Your task to perform on an android device: turn off sleep mode Image 0: 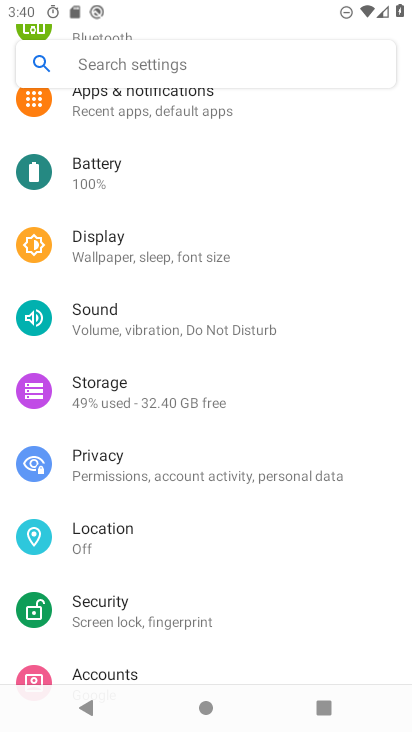
Step 0: press home button
Your task to perform on an android device: turn off sleep mode Image 1: 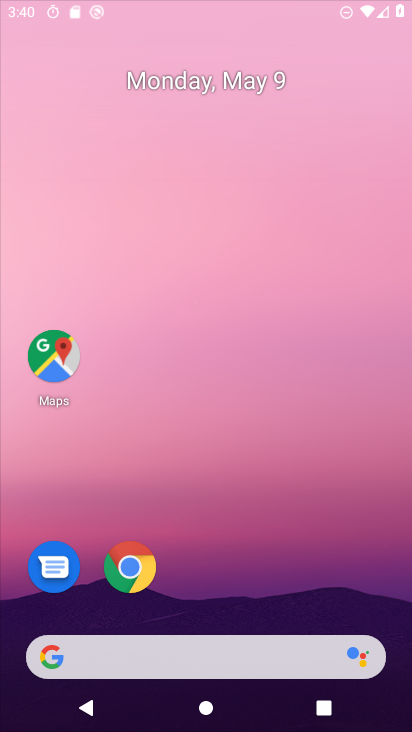
Step 1: drag from (293, 548) to (325, 17)
Your task to perform on an android device: turn off sleep mode Image 2: 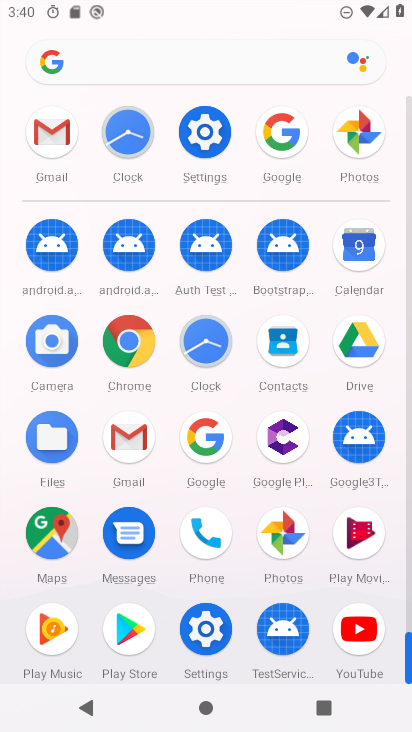
Step 2: click (207, 190)
Your task to perform on an android device: turn off sleep mode Image 3: 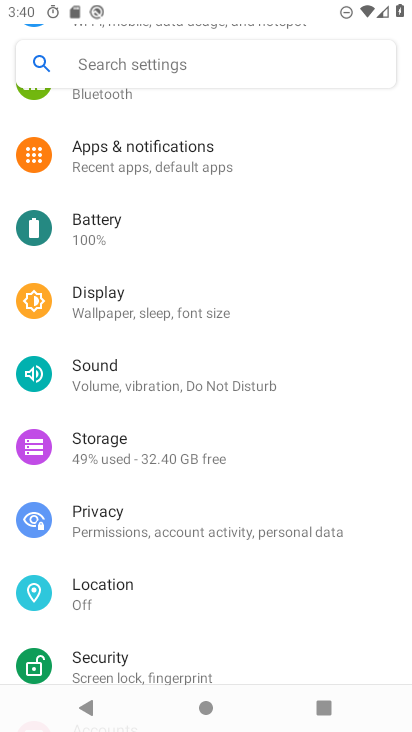
Step 3: click (174, 312)
Your task to perform on an android device: turn off sleep mode Image 4: 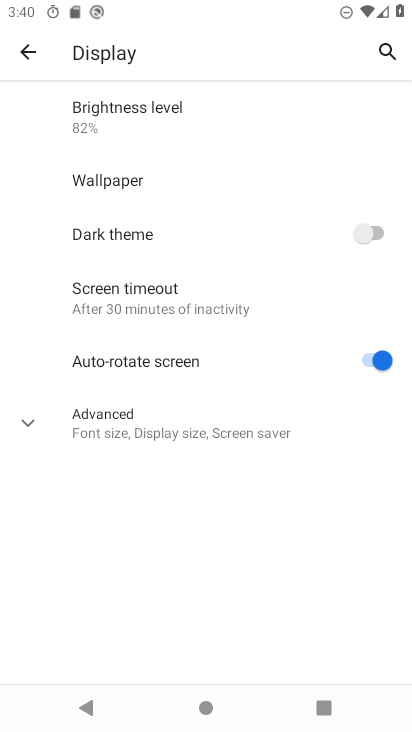
Step 4: click (216, 424)
Your task to perform on an android device: turn off sleep mode Image 5: 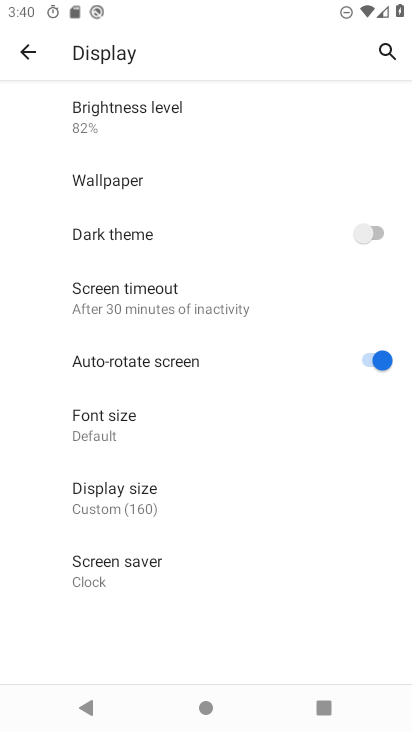
Step 5: task complete